Your task to perform on an android device: Go to calendar. Show me events next week Image 0: 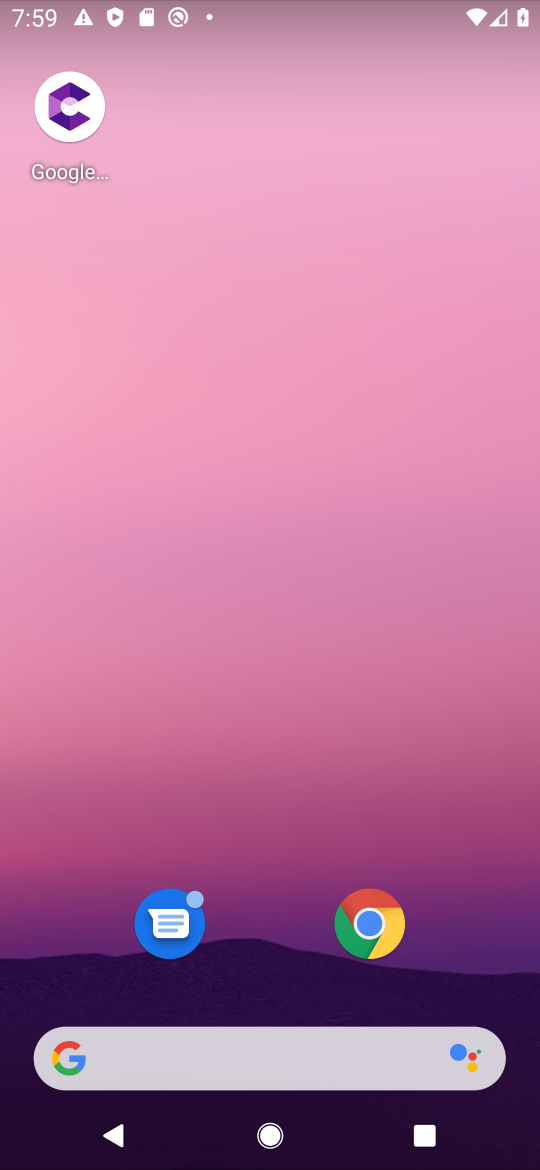
Step 0: drag from (524, 1119) to (412, 152)
Your task to perform on an android device: Go to calendar. Show me events next week Image 1: 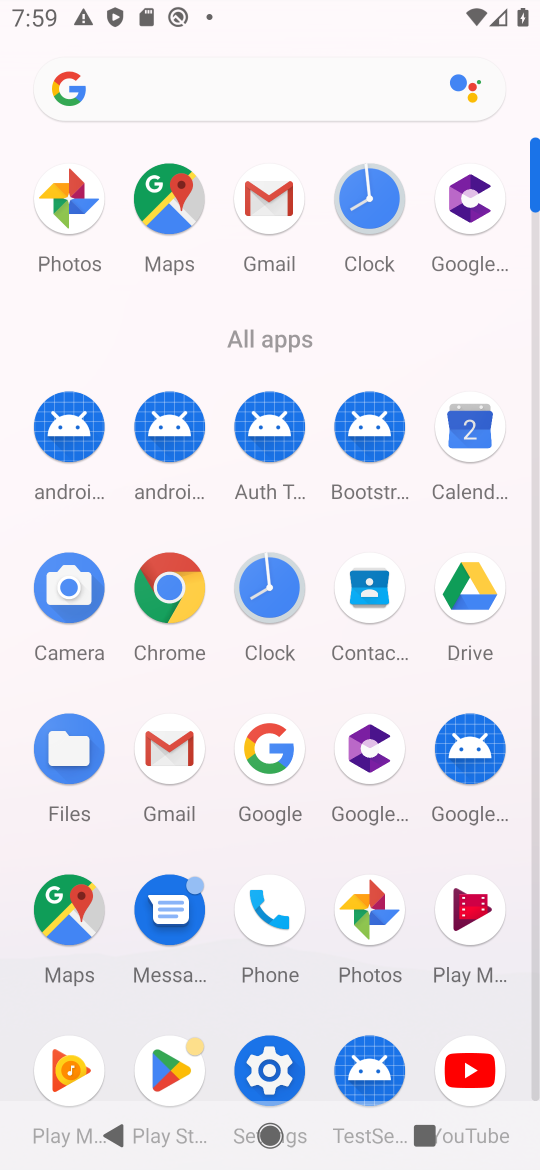
Step 1: click (467, 461)
Your task to perform on an android device: Go to calendar. Show me events next week Image 2: 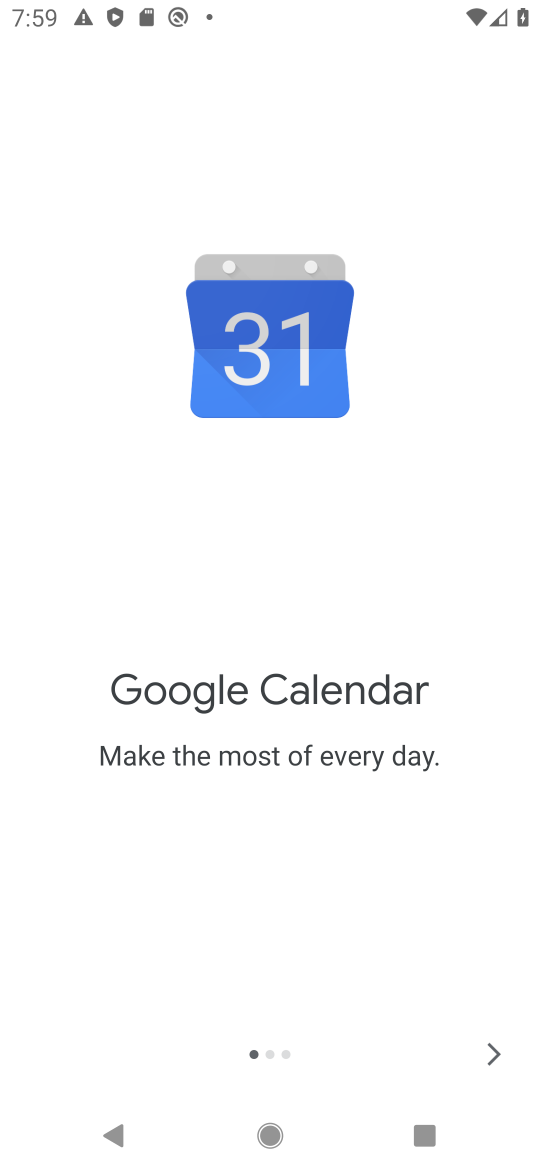
Step 2: click (494, 1052)
Your task to perform on an android device: Go to calendar. Show me events next week Image 3: 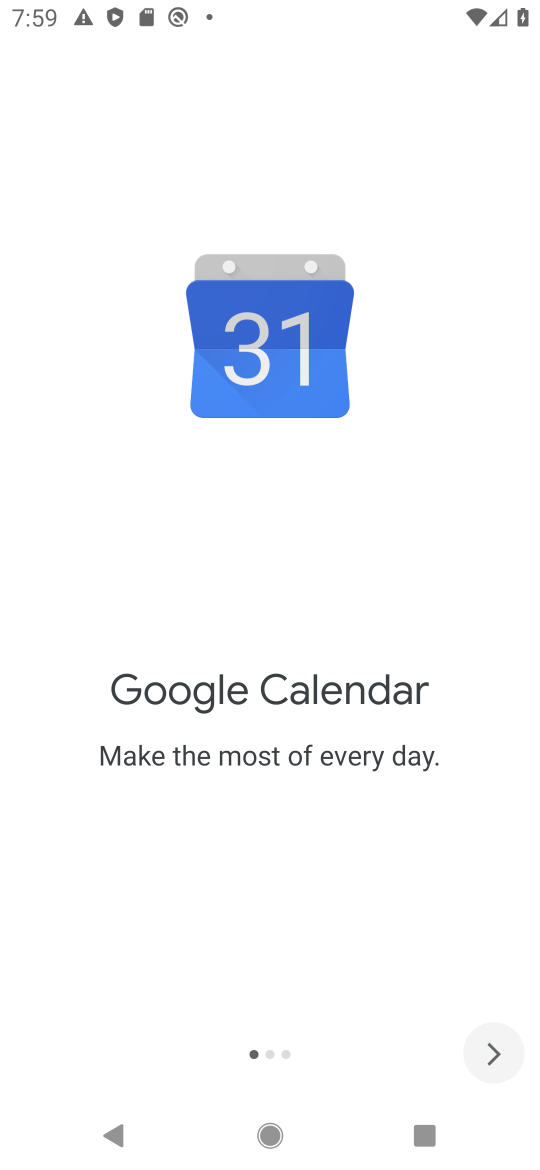
Step 3: click (494, 1052)
Your task to perform on an android device: Go to calendar. Show me events next week Image 4: 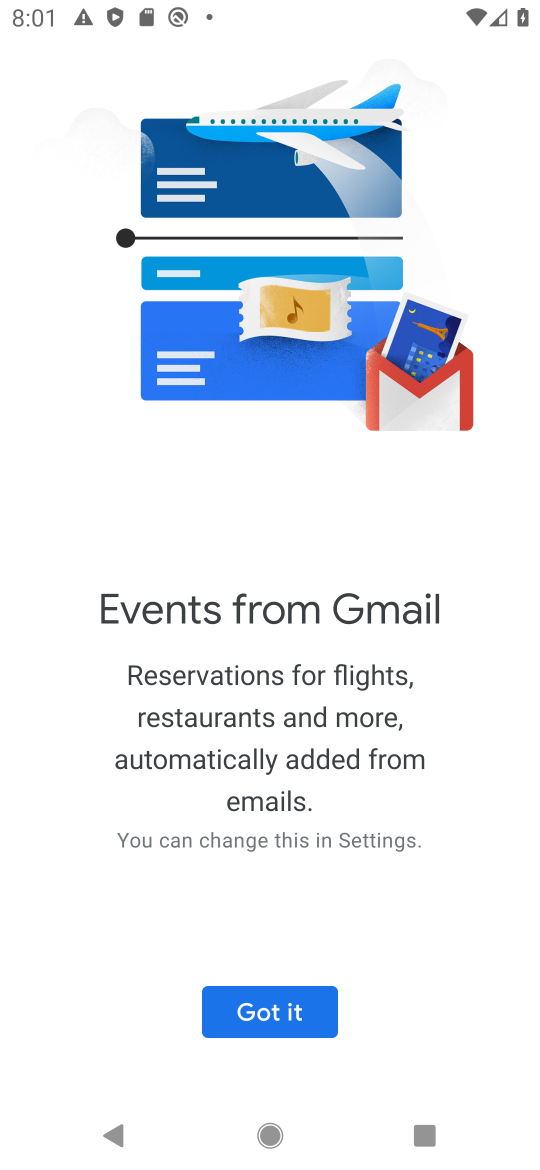
Step 4: click (281, 1013)
Your task to perform on an android device: Go to calendar. Show me events next week Image 5: 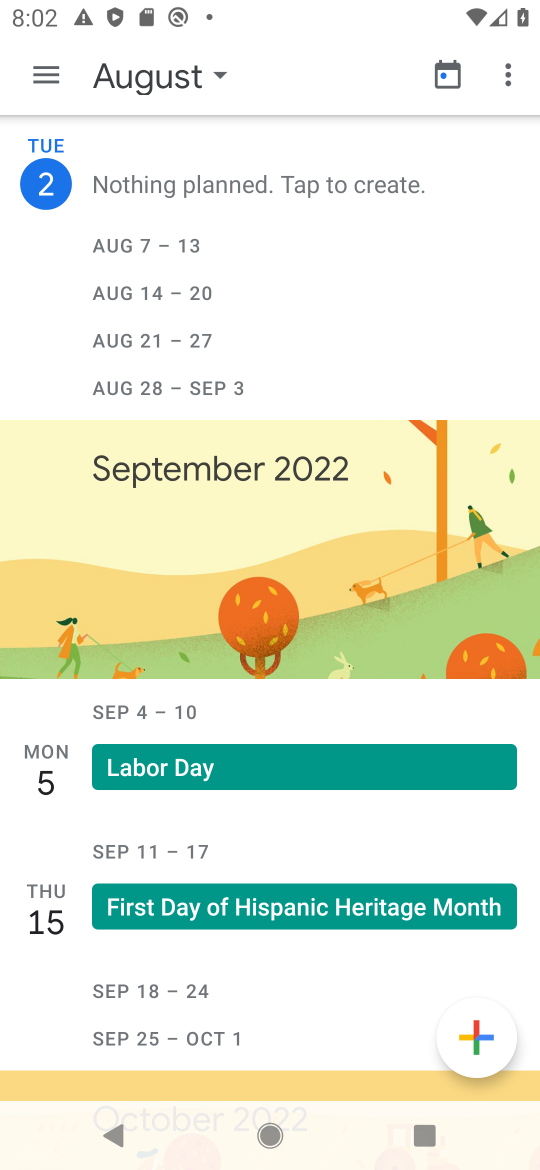
Step 5: click (50, 75)
Your task to perform on an android device: Go to calendar. Show me events next week Image 6: 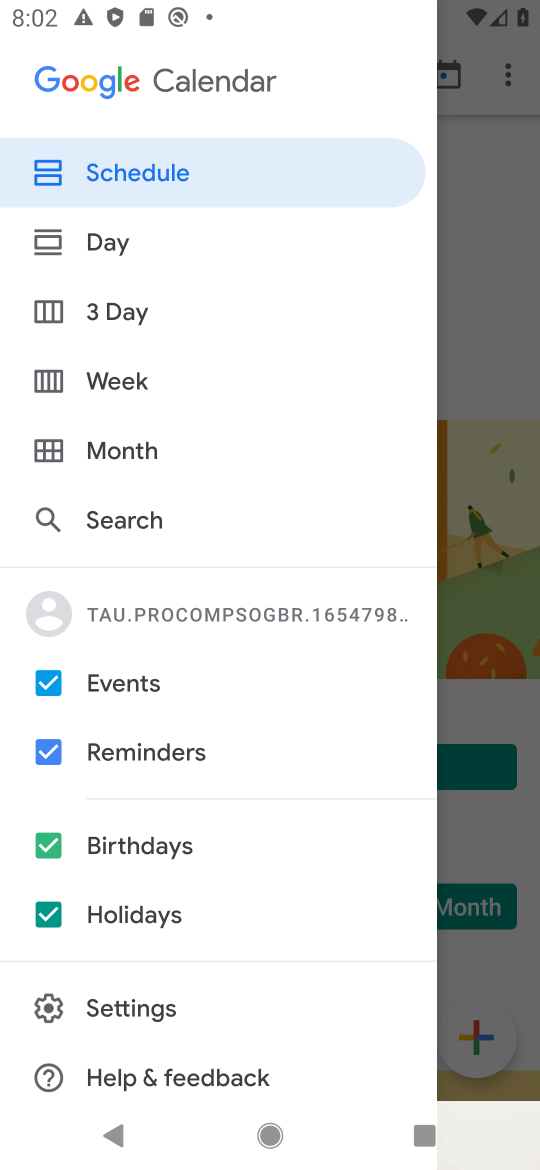
Step 6: click (108, 379)
Your task to perform on an android device: Go to calendar. Show me events next week Image 7: 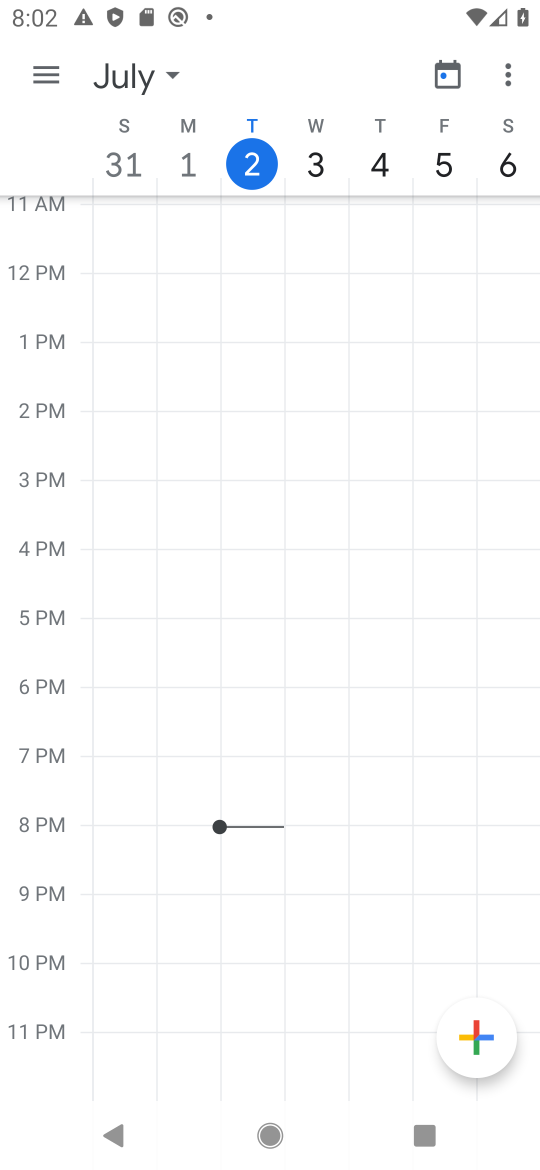
Step 7: click (171, 73)
Your task to perform on an android device: Go to calendar. Show me events next week Image 8: 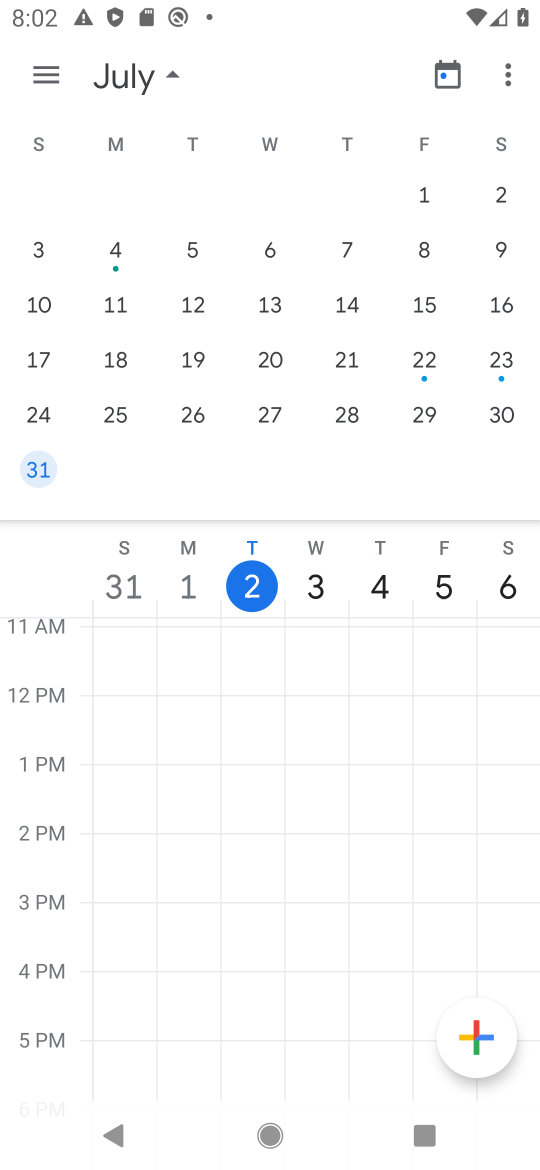
Step 8: drag from (518, 266) to (41, 259)
Your task to perform on an android device: Go to calendar. Show me events next week Image 9: 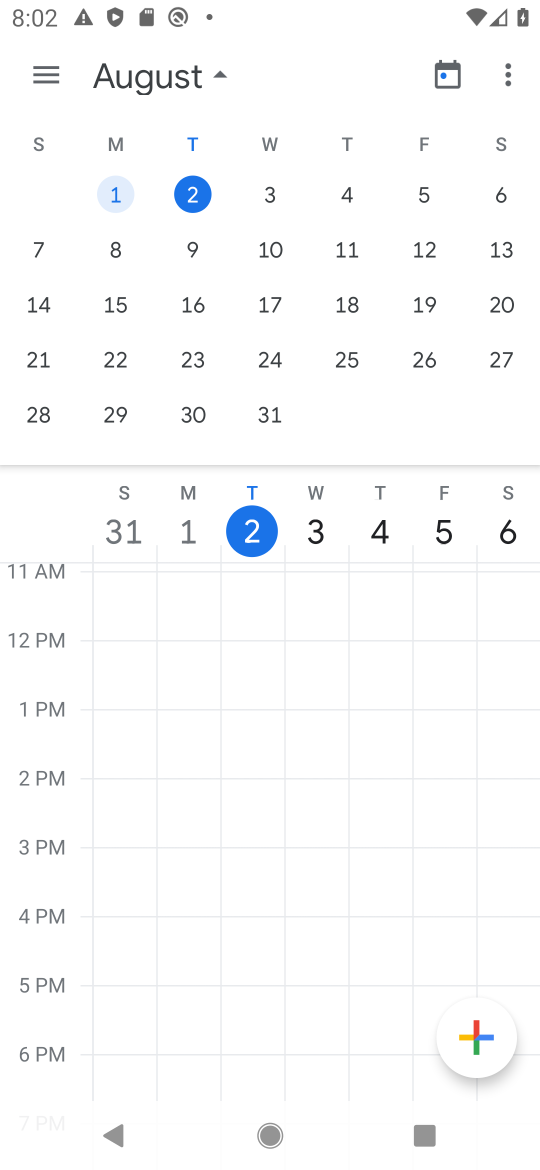
Step 9: click (268, 241)
Your task to perform on an android device: Go to calendar. Show me events next week Image 10: 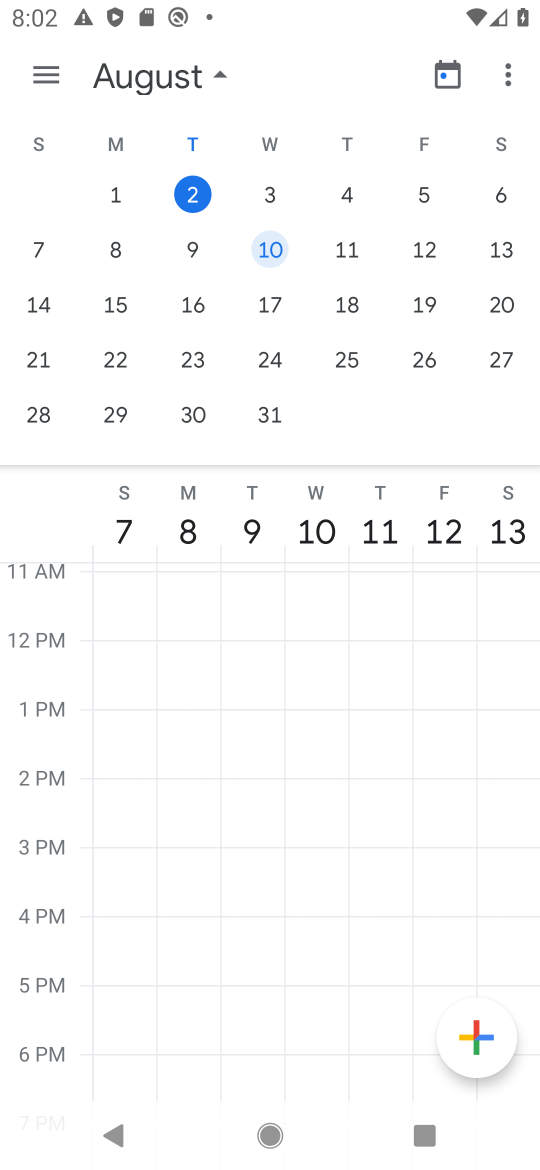
Step 10: click (40, 73)
Your task to perform on an android device: Go to calendar. Show me events next week Image 11: 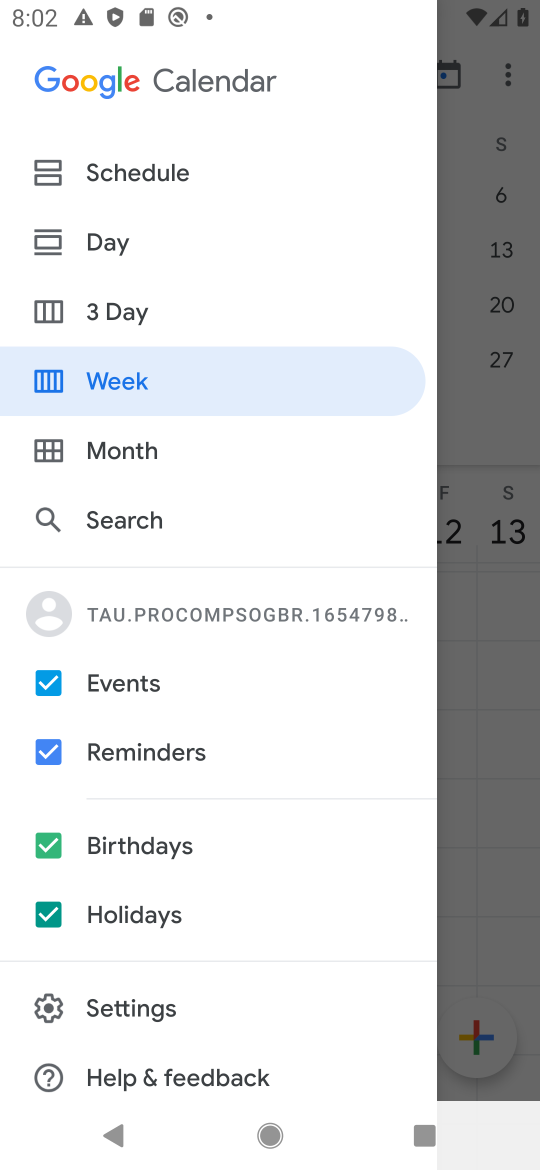
Step 11: click (123, 169)
Your task to perform on an android device: Go to calendar. Show me events next week Image 12: 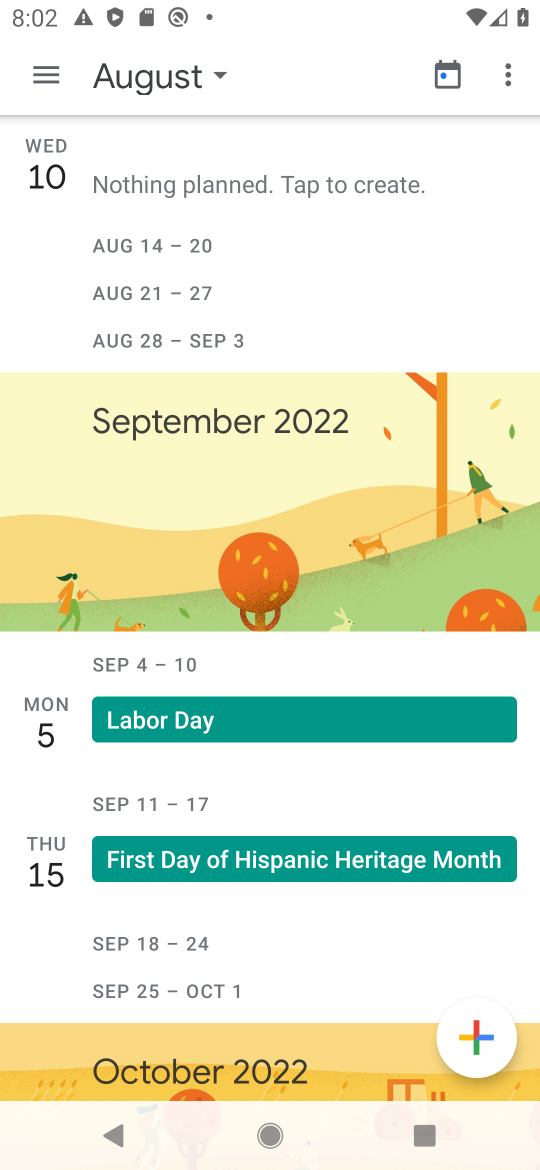
Step 12: task complete